Your task to perform on an android device: Go to internet settings Image 0: 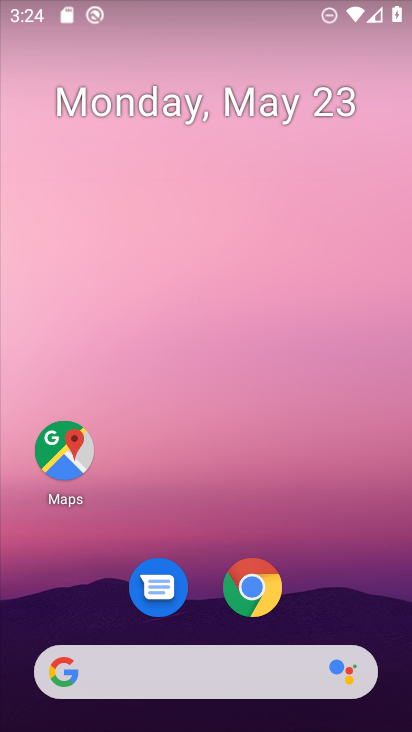
Step 0: drag from (196, 611) to (282, 3)
Your task to perform on an android device: Go to internet settings Image 1: 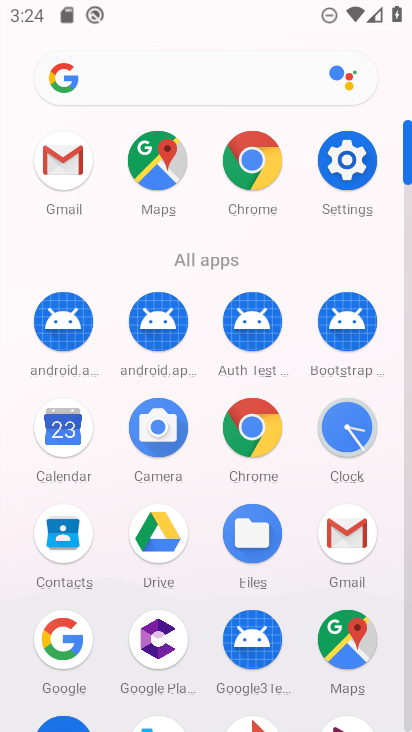
Step 1: click (335, 165)
Your task to perform on an android device: Go to internet settings Image 2: 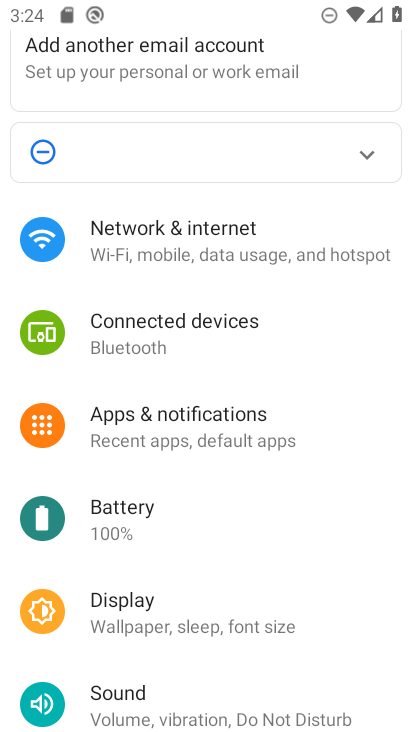
Step 2: click (234, 257)
Your task to perform on an android device: Go to internet settings Image 3: 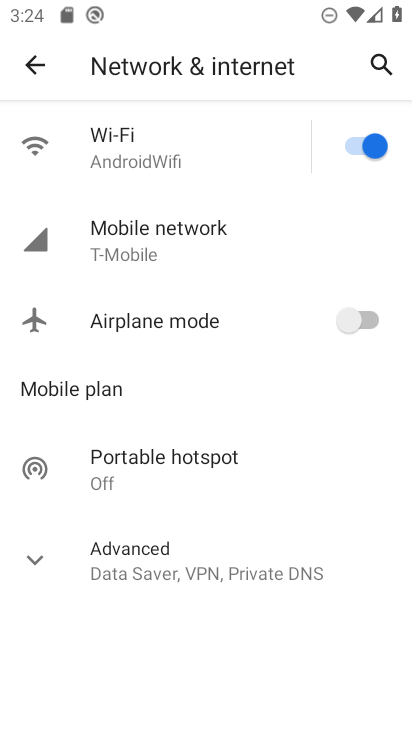
Step 3: task complete